Your task to perform on an android device: Search for Mexican restaurants on Maps Image 0: 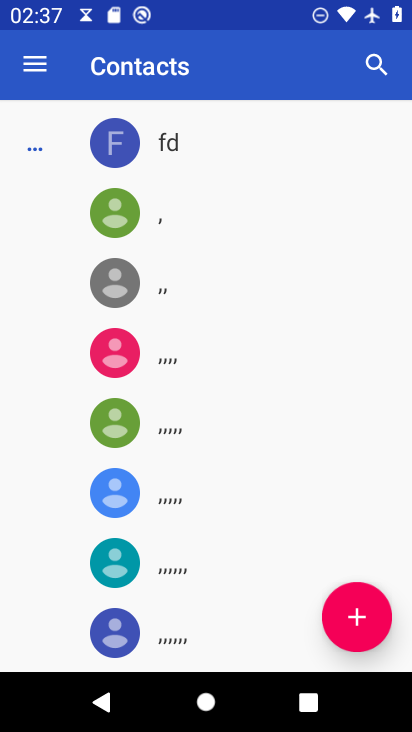
Step 0: press home button
Your task to perform on an android device: Search for Mexican restaurants on Maps Image 1: 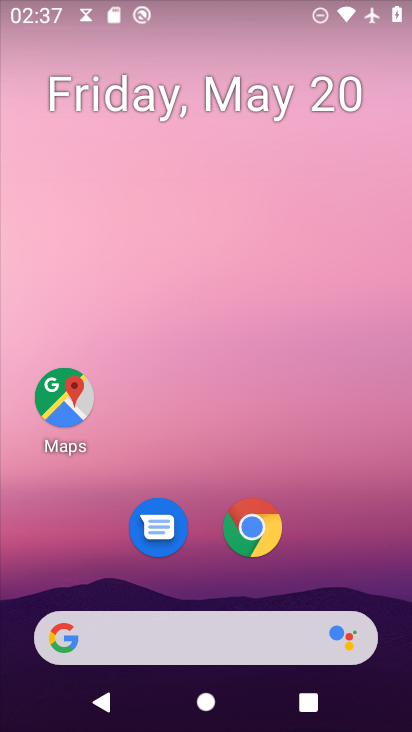
Step 1: click (78, 403)
Your task to perform on an android device: Search for Mexican restaurants on Maps Image 2: 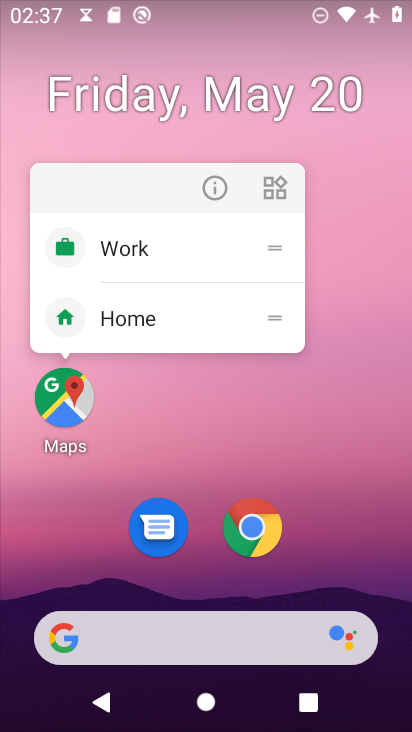
Step 2: click (57, 421)
Your task to perform on an android device: Search for Mexican restaurants on Maps Image 3: 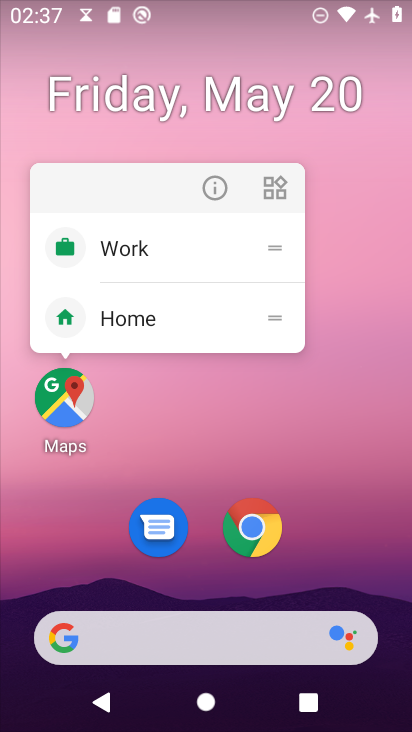
Step 3: click (65, 405)
Your task to perform on an android device: Search for Mexican restaurants on Maps Image 4: 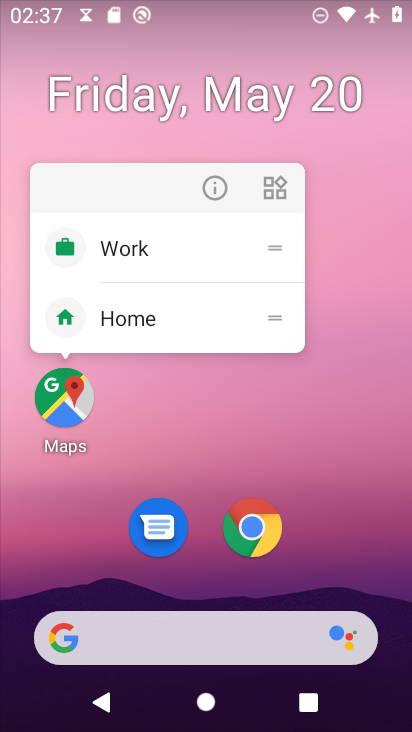
Step 4: click (67, 398)
Your task to perform on an android device: Search for Mexican restaurants on Maps Image 5: 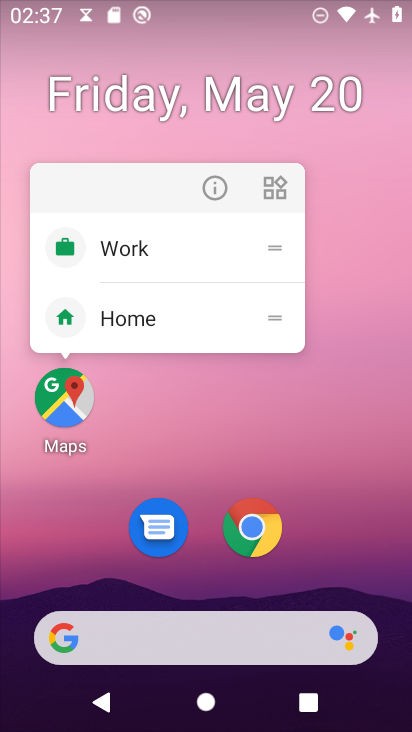
Step 5: click (65, 408)
Your task to perform on an android device: Search for Mexican restaurants on Maps Image 6: 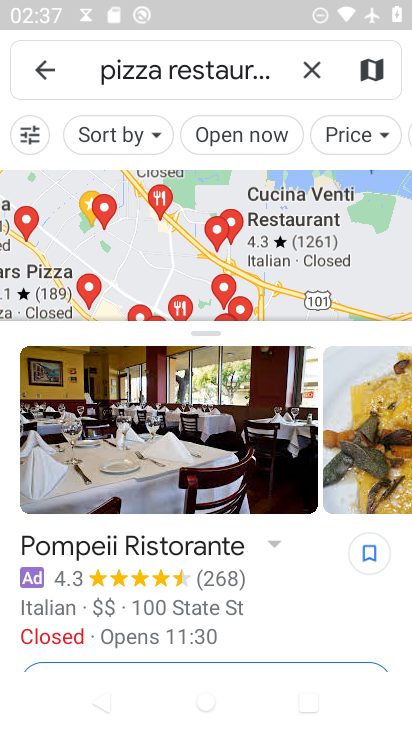
Step 6: click (311, 67)
Your task to perform on an android device: Search for Mexican restaurants on Maps Image 7: 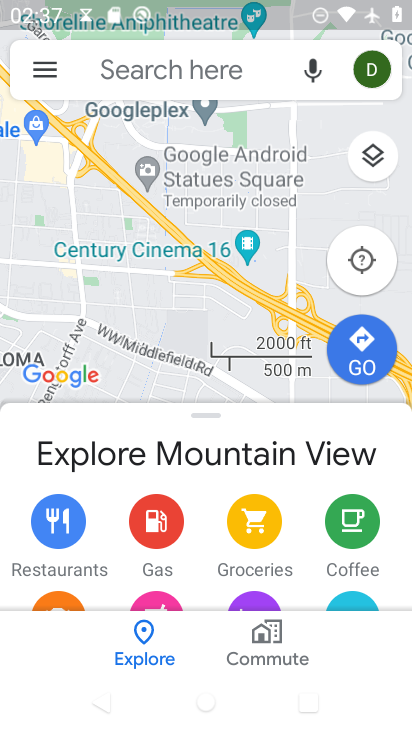
Step 7: click (188, 72)
Your task to perform on an android device: Search for Mexican restaurants on Maps Image 8: 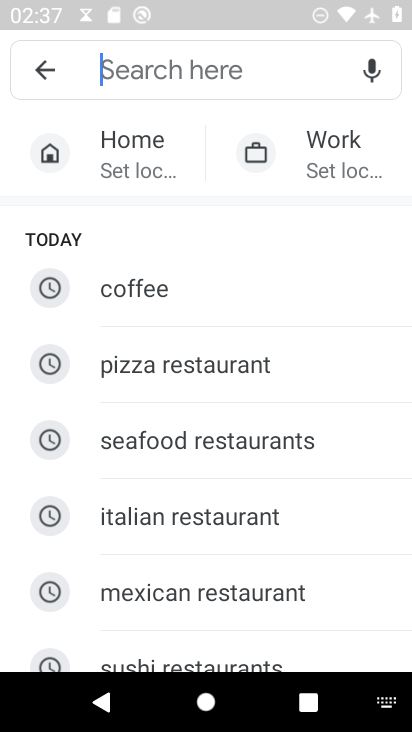
Step 8: click (208, 584)
Your task to perform on an android device: Search for Mexican restaurants on Maps Image 9: 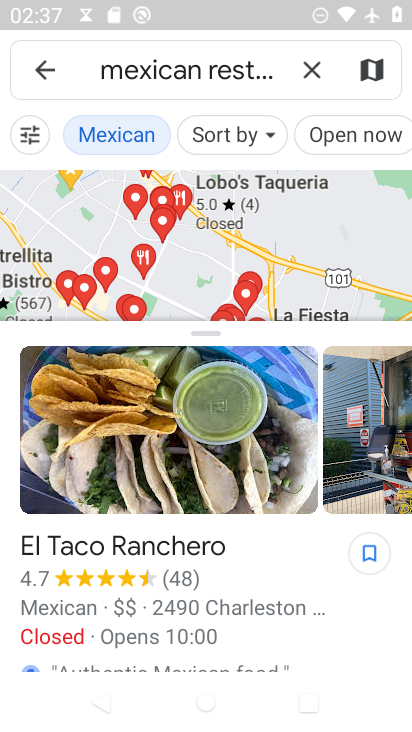
Step 9: task complete